Your task to perform on an android device: Is it going to rain this weekend? Image 0: 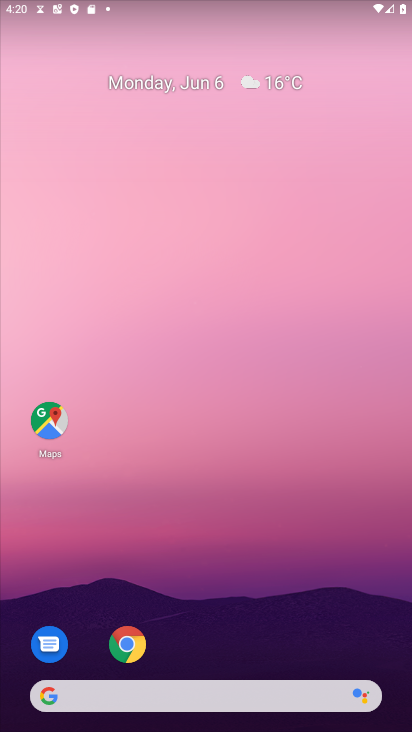
Step 0: click (196, 705)
Your task to perform on an android device: Is it going to rain this weekend? Image 1: 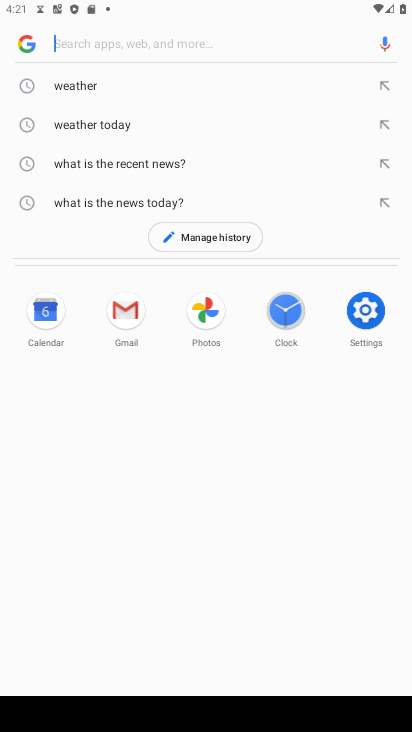
Step 1: type "weather this weekend"
Your task to perform on an android device: Is it going to rain this weekend? Image 2: 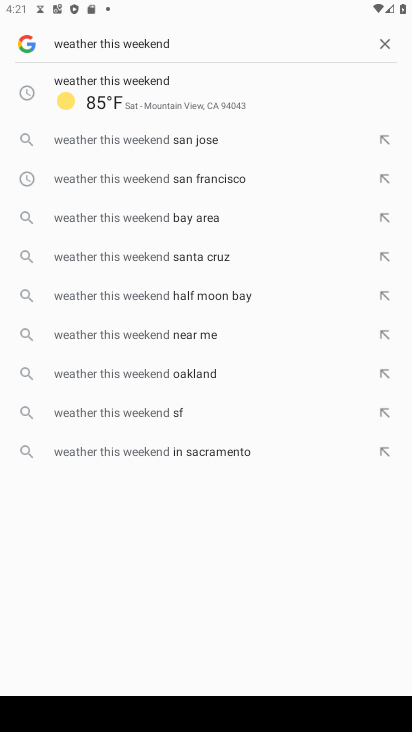
Step 2: click (128, 92)
Your task to perform on an android device: Is it going to rain this weekend? Image 3: 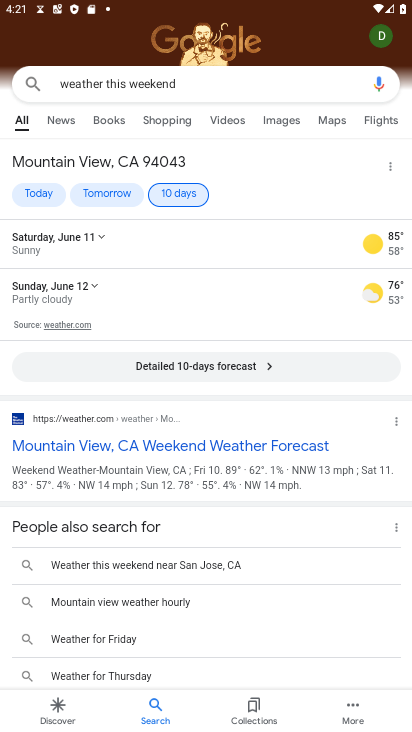
Step 3: click (168, 366)
Your task to perform on an android device: Is it going to rain this weekend? Image 4: 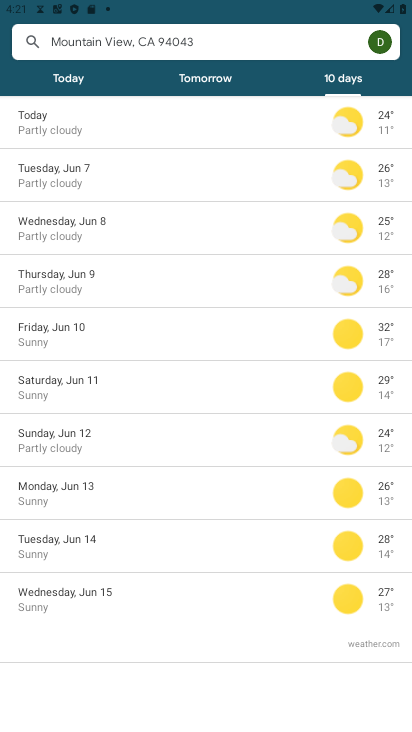
Step 4: click (94, 391)
Your task to perform on an android device: Is it going to rain this weekend? Image 5: 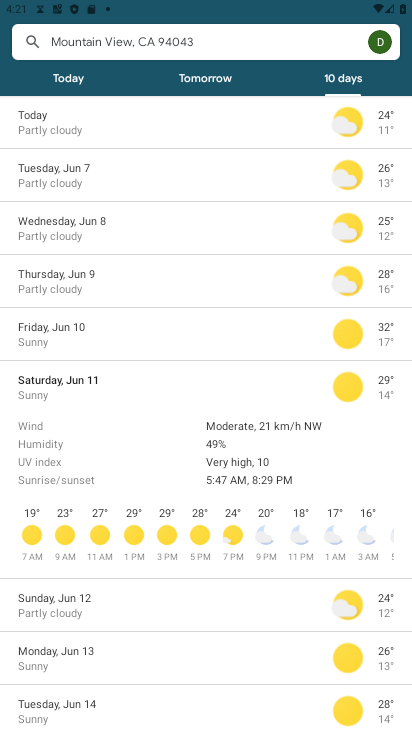
Step 5: click (46, 598)
Your task to perform on an android device: Is it going to rain this weekend? Image 6: 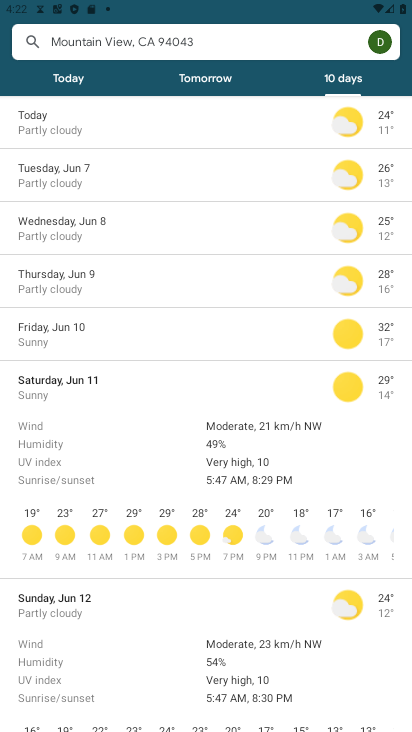
Step 6: task complete